Your task to perform on an android device: Do I have any events this weekend? Image 0: 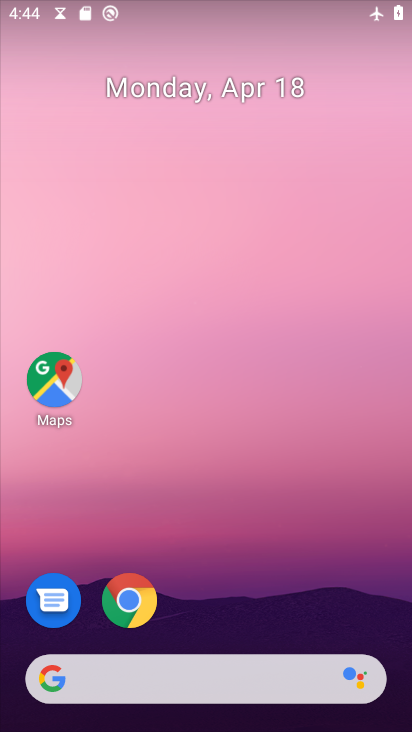
Step 0: drag from (210, 619) to (410, 61)
Your task to perform on an android device: Do I have any events this weekend? Image 1: 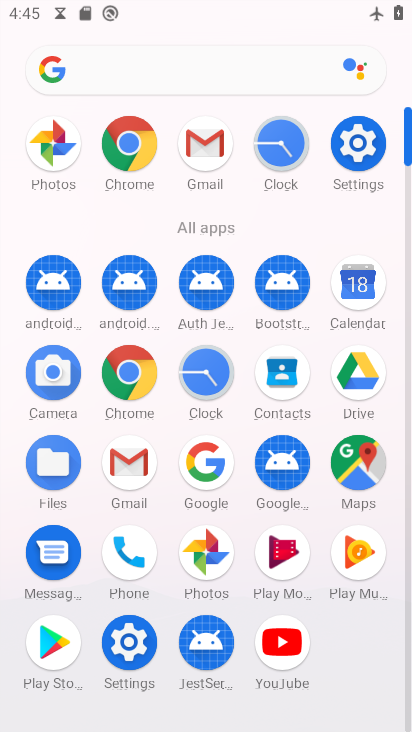
Step 1: click (363, 296)
Your task to perform on an android device: Do I have any events this weekend? Image 2: 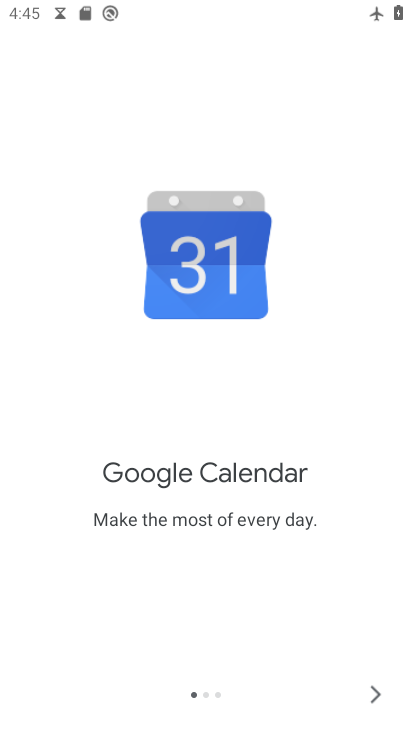
Step 2: click (381, 698)
Your task to perform on an android device: Do I have any events this weekend? Image 3: 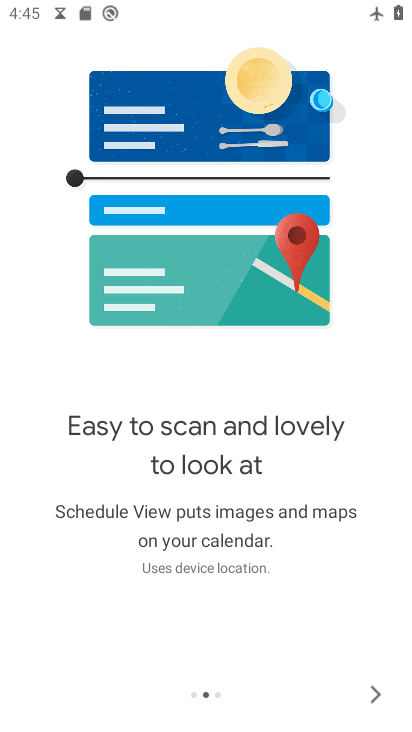
Step 3: click (371, 689)
Your task to perform on an android device: Do I have any events this weekend? Image 4: 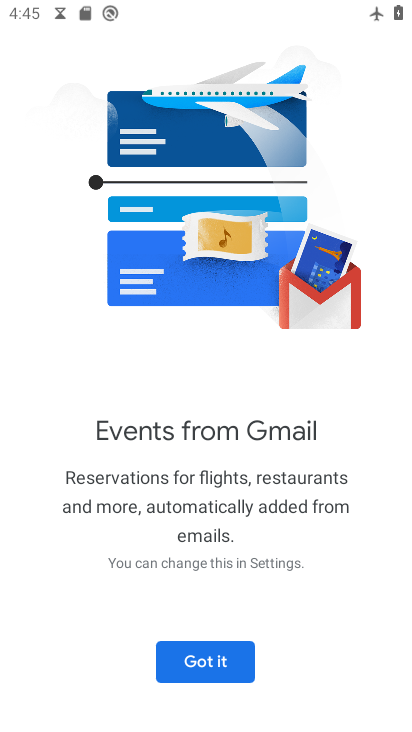
Step 4: click (196, 657)
Your task to perform on an android device: Do I have any events this weekend? Image 5: 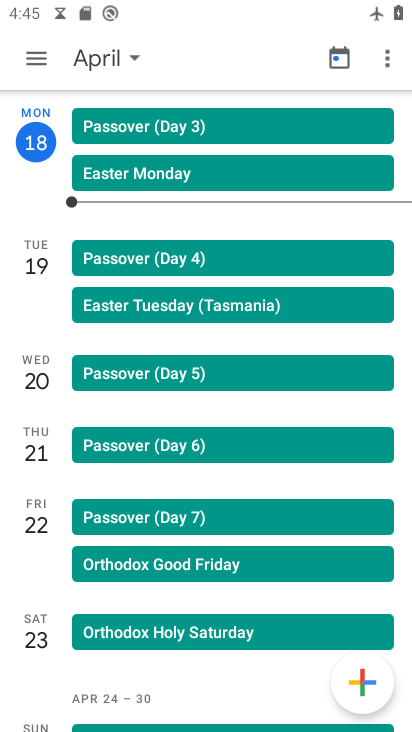
Step 5: click (34, 65)
Your task to perform on an android device: Do I have any events this weekend? Image 6: 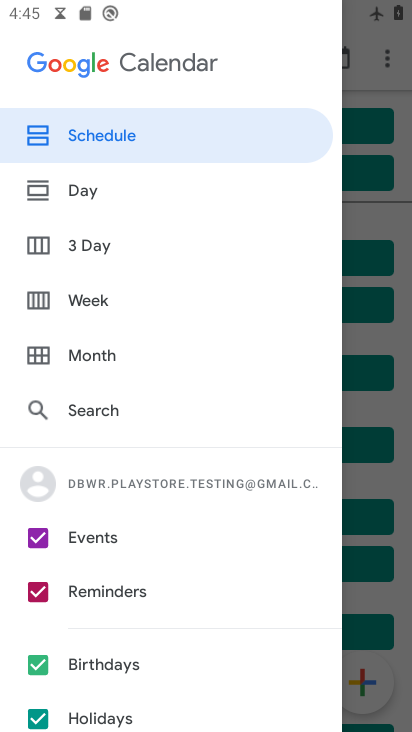
Step 6: click (33, 586)
Your task to perform on an android device: Do I have any events this weekend? Image 7: 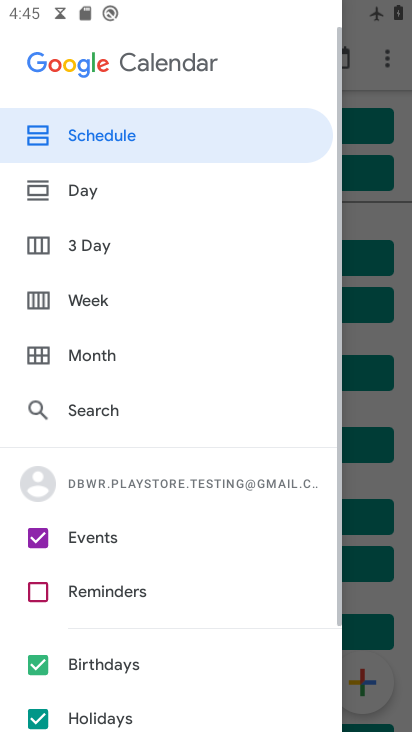
Step 7: click (36, 671)
Your task to perform on an android device: Do I have any events this weekend? Image 8: 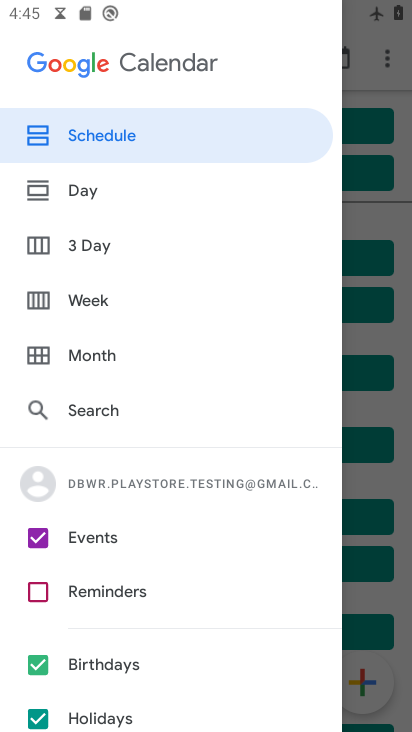
Step 8: drag from (220, 645) to (254, 231)
Your task to perform on an android device: Do I have any events this weekend? Image 9: 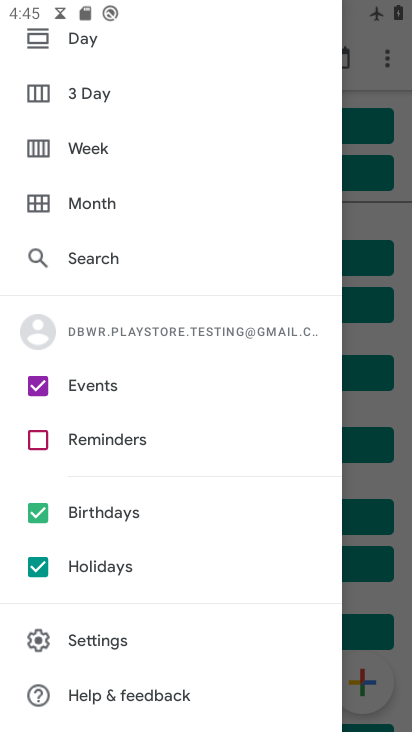
Step 9: click (40, 509)
Your task to perform on an android device: Do I have any events this weekend? Image 10: 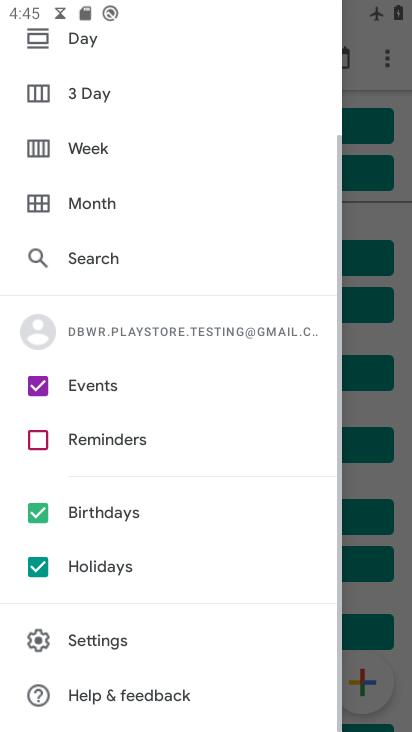
Step 10: click (36, 565)
Your task to perform on an android device: Do I have any events this weekend? Image 11: 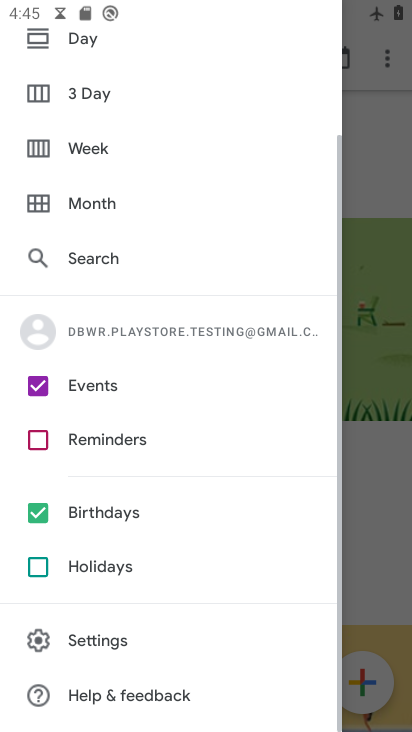
Step 11: click (36, 514)
Your task to perform on an android device: Do I have any events this weekend? Image 12: 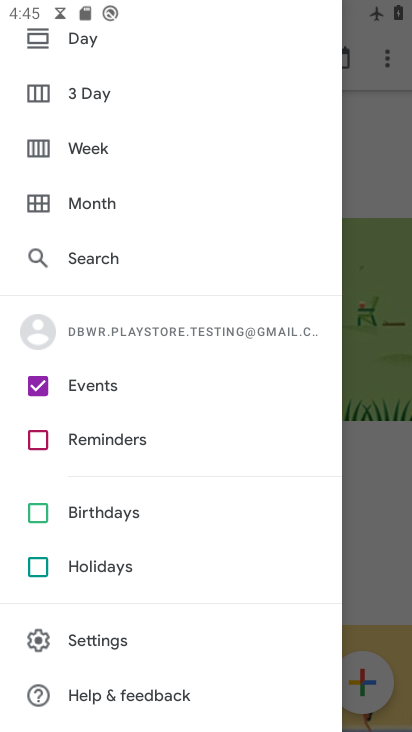
Step 12: click (76, 157)
Your task to perform on an android device: Do I have any events this weekend? Image 13: 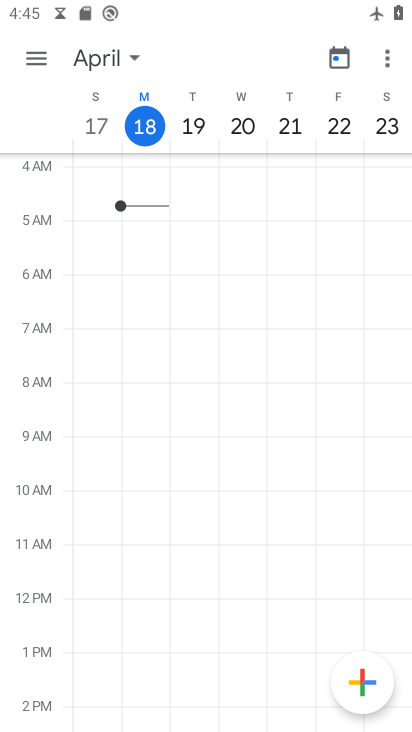
Step 13: task complete